Your task to perform on an android device: Open the stopwatch Image 0: 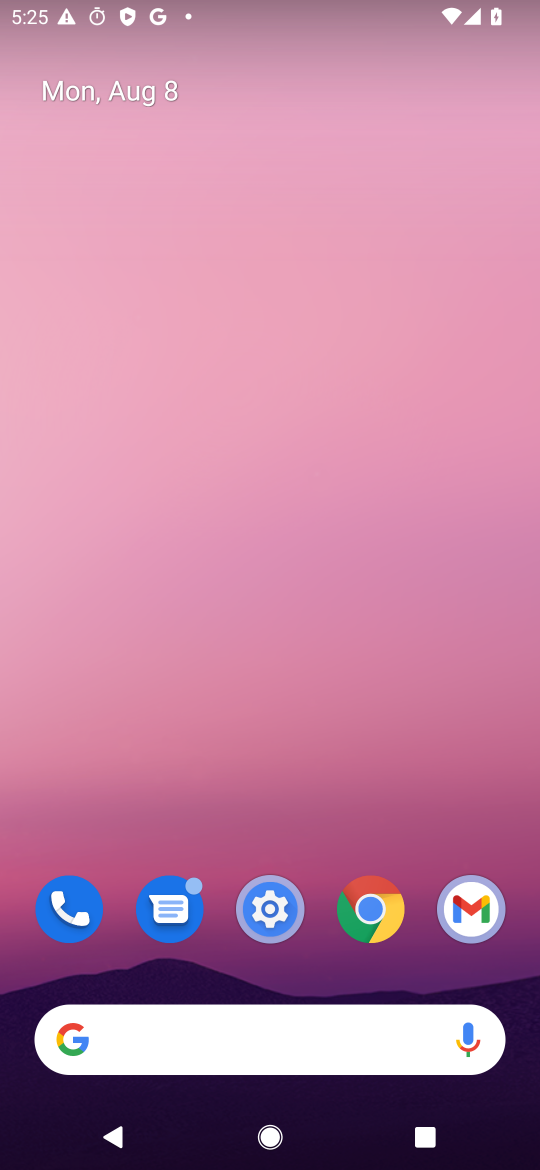
Step 0: press home button
Your task to perform on an android device: Open the stopwatch Image 1: 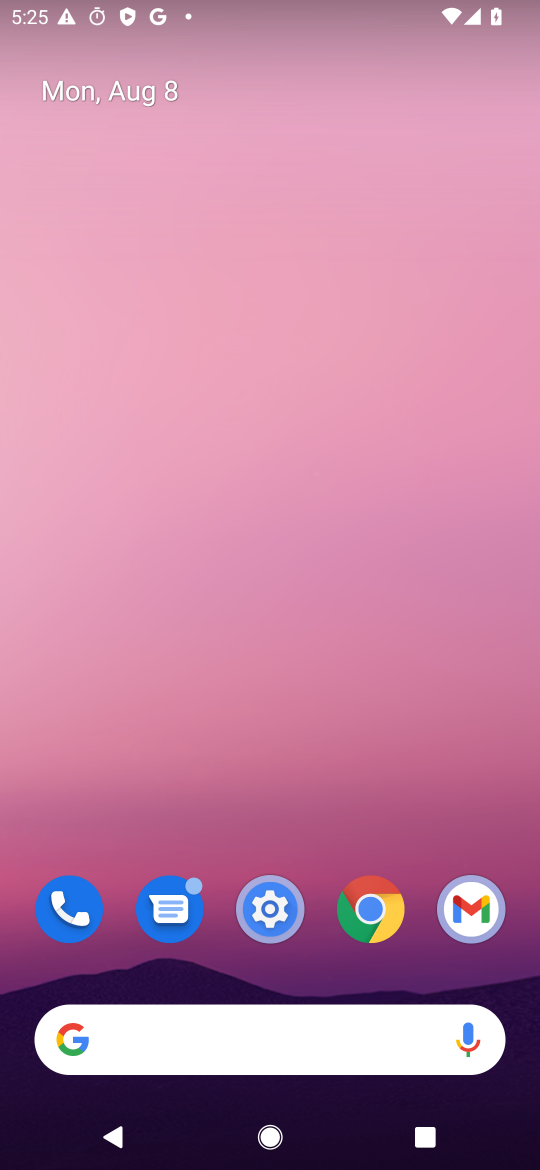
Step 1: drag from (256, 983) to (502, 151)
Your task to perform on an android device: Open the stopwatch Image 2: 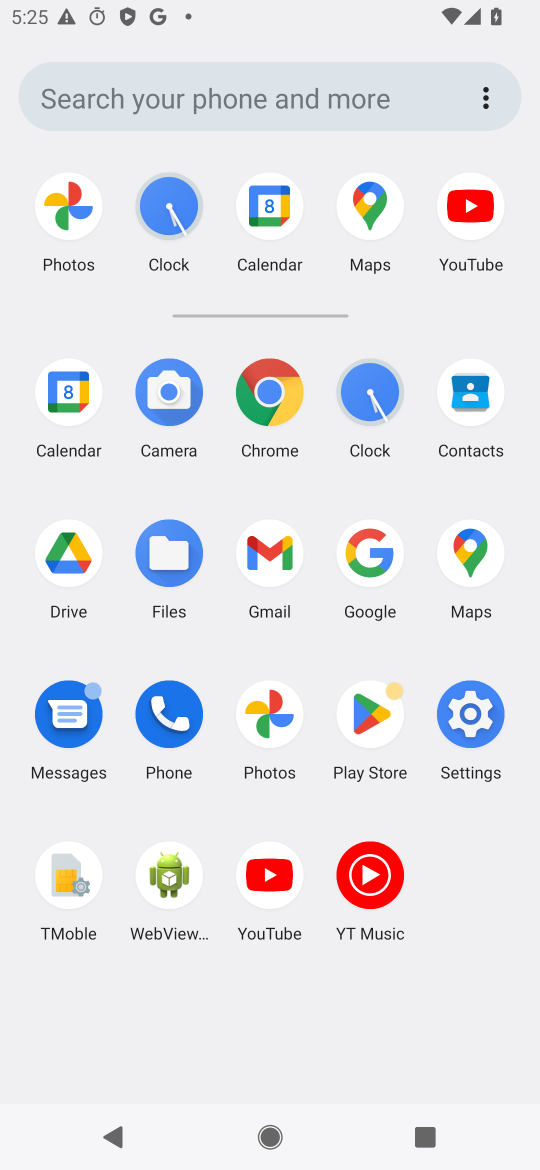
Step 2: click (370, 397)
Your task to perform on an android device: Open the stopwatch Image 3: 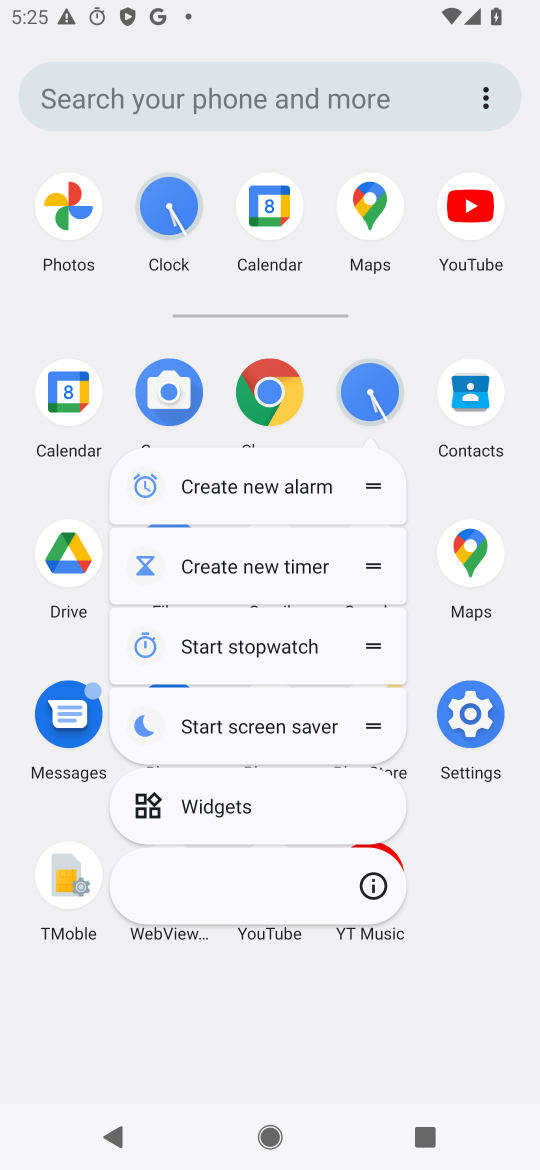
Step 3: click (370, 399)
Your task to perform on an android device: Open the stopwatch Image 4: 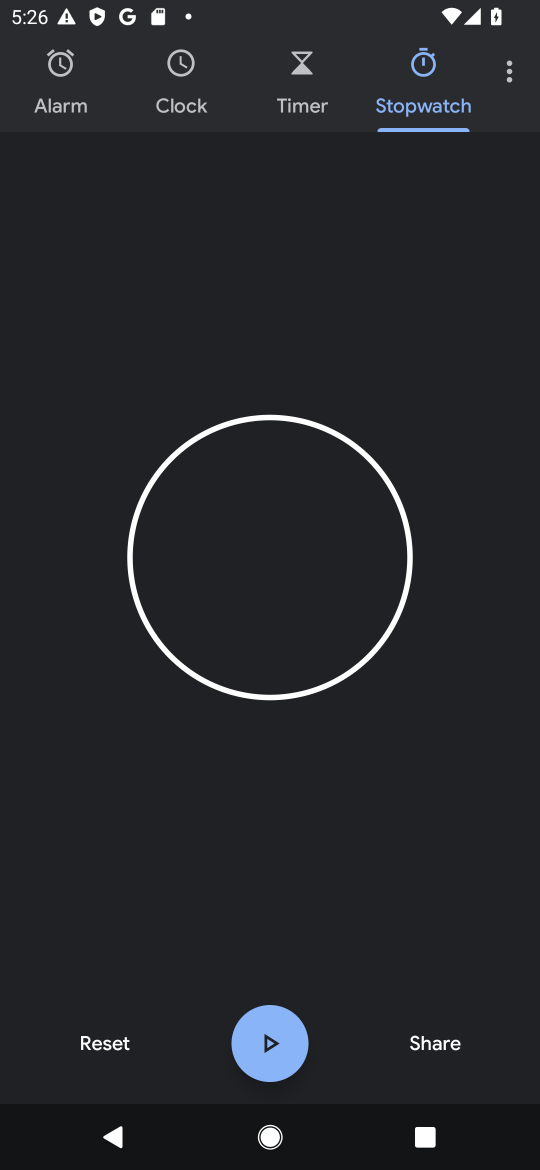
Step 4: task complete